Your task to perform on an android device: turn off data saver in the chrome app Image 0: 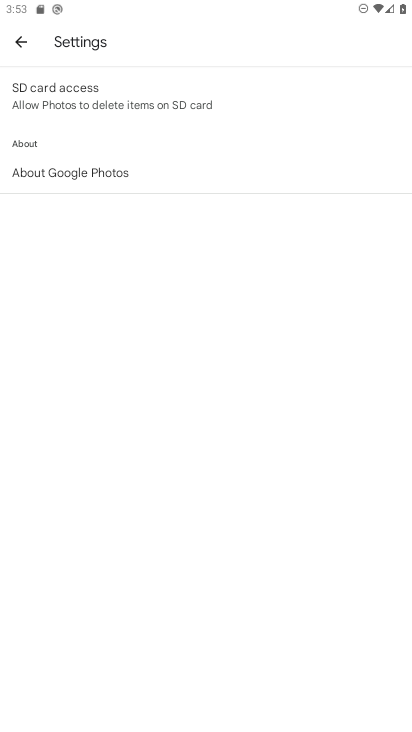
Step 0: press home button
Your task to perform on an android device: turn off data saver in the chrome app Image 1: 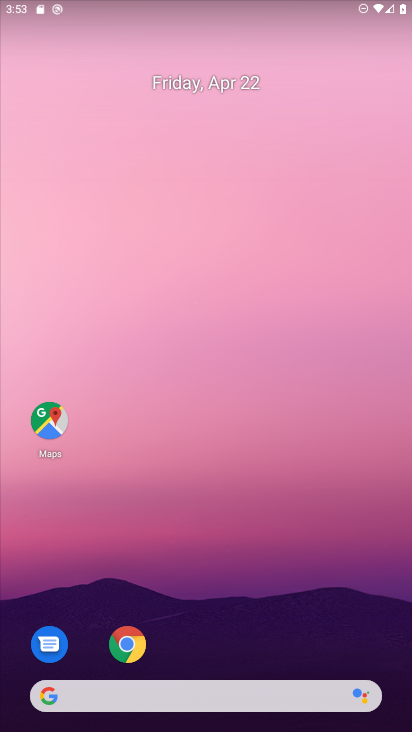
Step 1: drag from (252, 631) to (316, 201)
Your task to perform on an android device: turn off data saver in the chrome app Image 2: 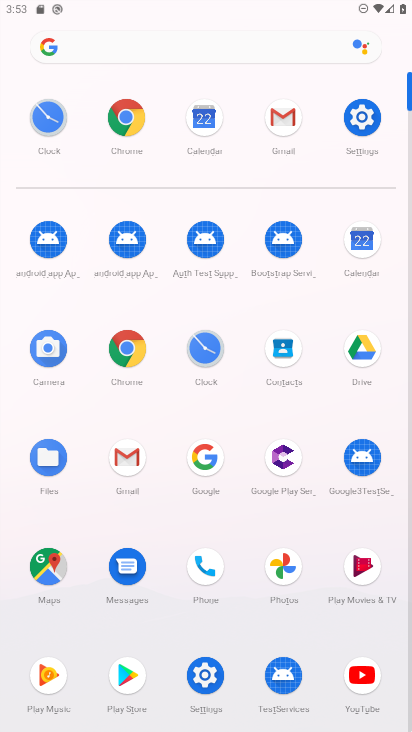
Step 2: click (138, 344)
Your task to perform on an android device: turn off data saver in the chrome app Image 3: 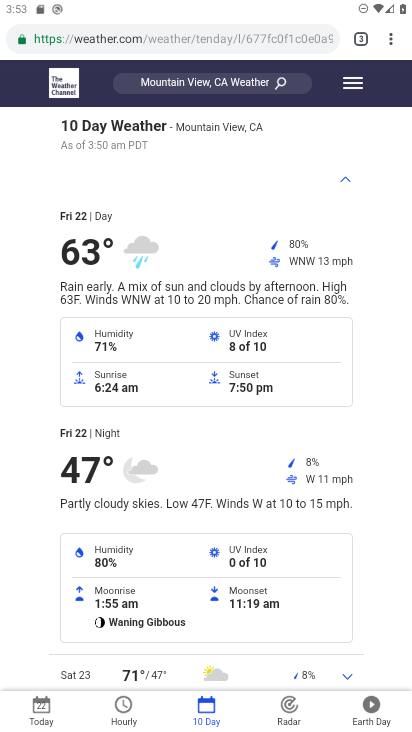
Step 3: drag from (391, 37) to (268, 513)
Your task to perform on an android device: turn off data saver in the chrome app Image 4: 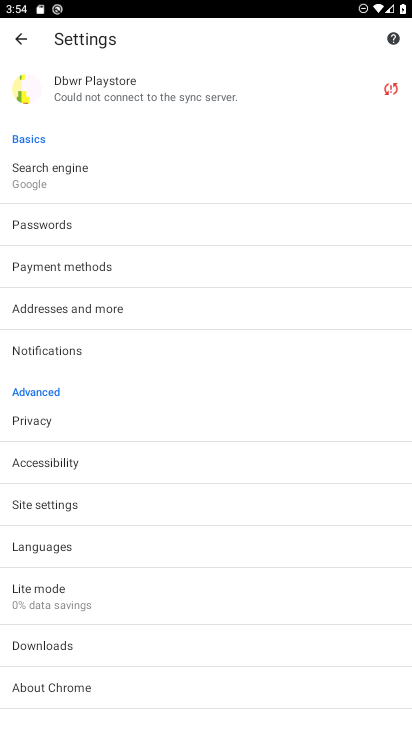
Step 4: click (79, 589)
Your task to perform on an android device: turn off data saver in the chrome app Image 5: 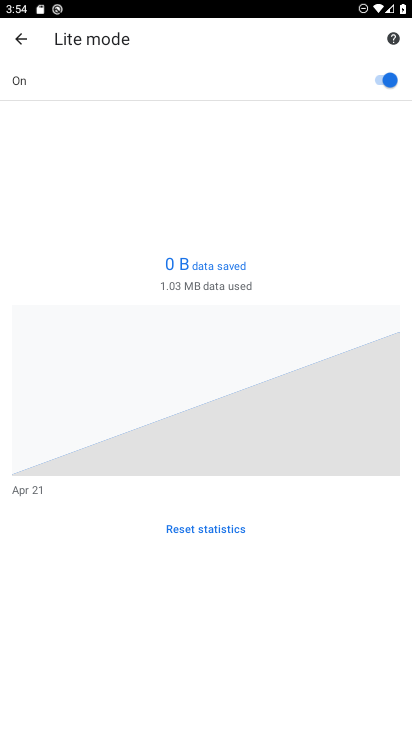
Step 5: click (380, 76)
Your task to perform on an android device: turn off data saver in the chrome app Image 6: 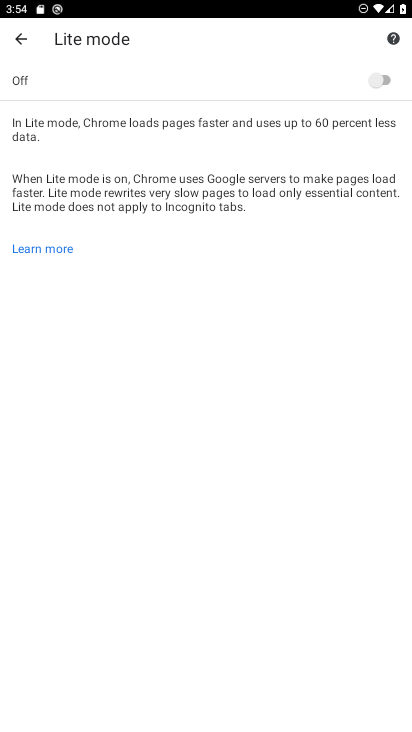
Step 6: task complete